Your task to perform on an android device: What's the weather? Image 0: 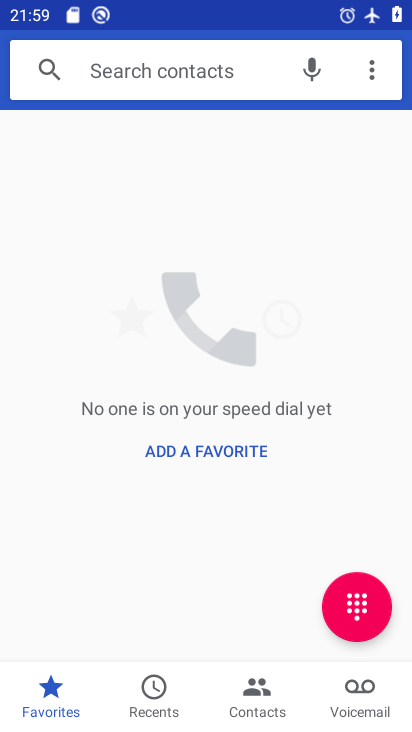
Step 0: press home button
Your task to perform on an android device: What's the weather? Image 1: 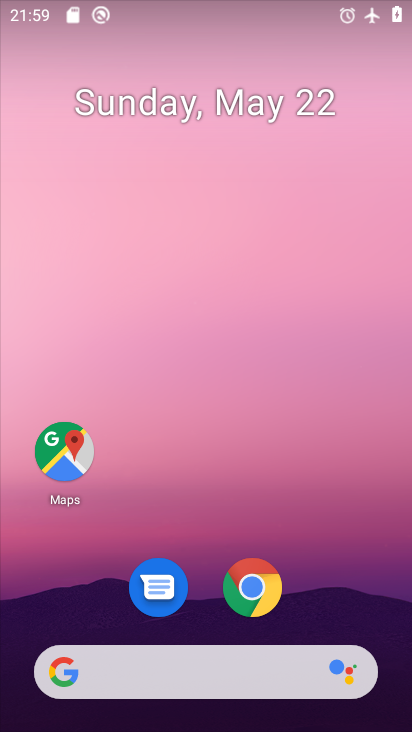
Step 1: click (195, 673)
Your task to perform on an android device: What's the weather? Image 2: 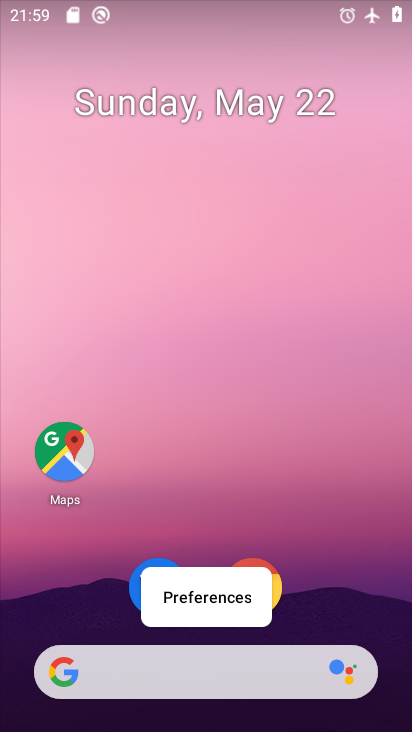
Step 2: click (155, 674)
Your task to perform on an android device: What's the weather? Image 3: 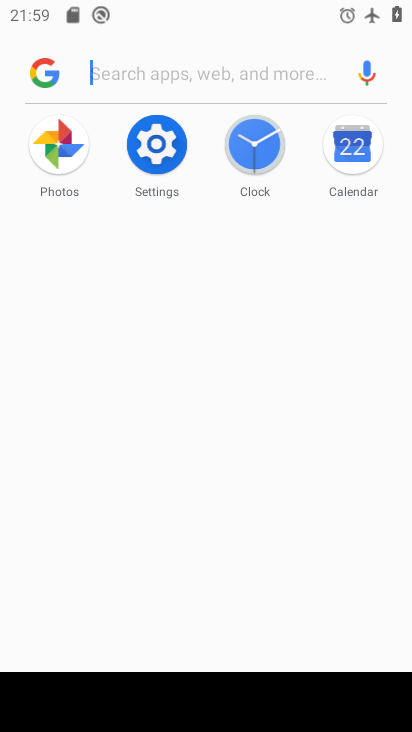
Step 3: type "weather"
Your task to perform on an android device: What's the weather? Image 4: 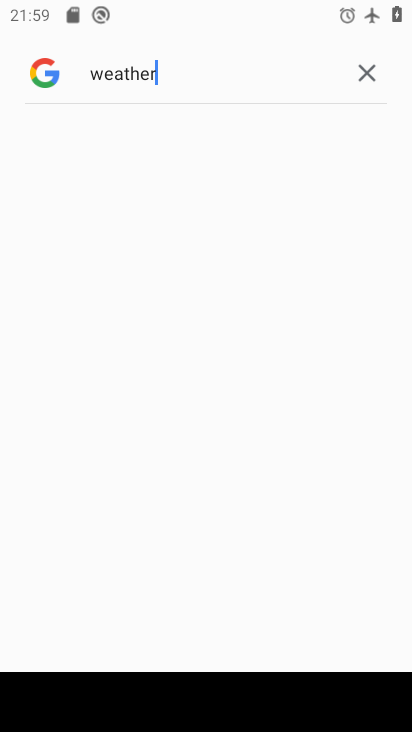
Step 4: task complete